Your task to perform on an android device: Open sound settings Image 0: 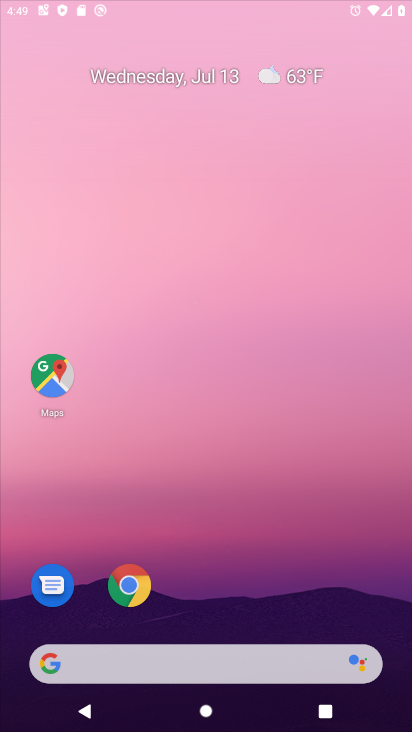
Step 0: press home button
Your task to perform on an android device: Open sound settings Image 1: 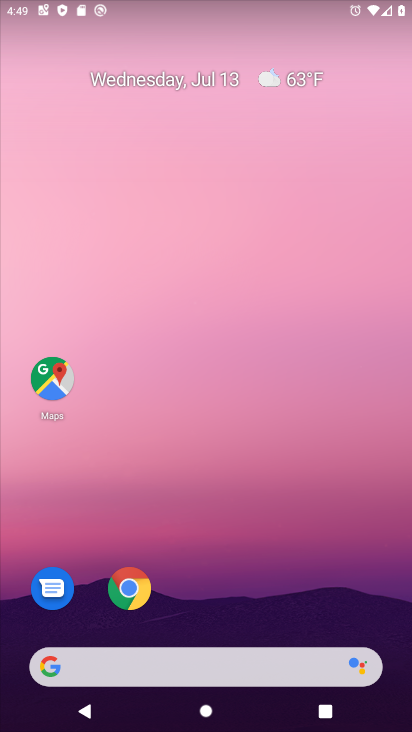
Step 1: drag from (196, 666) to (187, 174)
Your task to perform on an android device: Open sound settings Image 2: 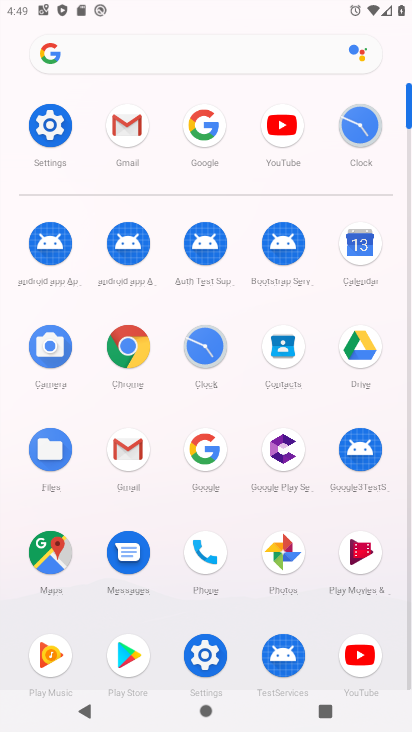
Step 2: click (50, 124)
Your task to perform on an android device: Open sound settings Image 3: 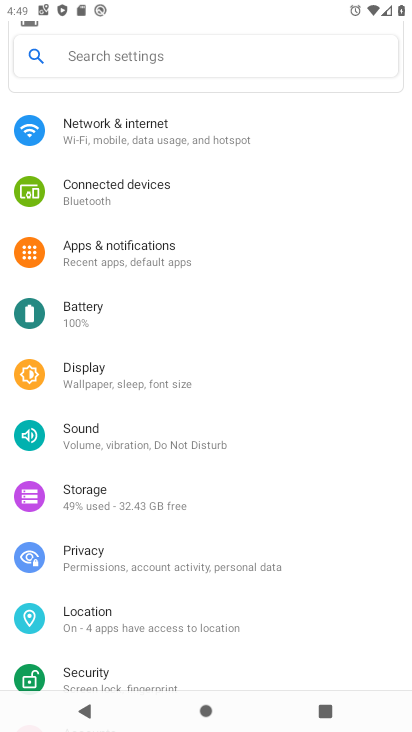
Step 3: click (87, 433)
Your task to perform on an android device: Open sound settings Image 4: 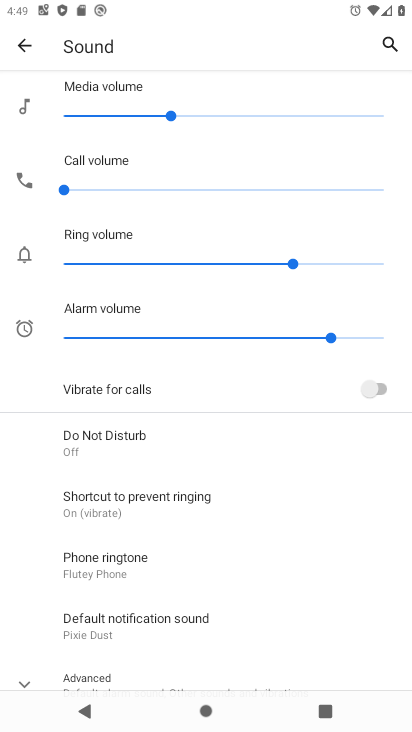
Step 4: task complete